Your task to perform on an android device: open app "Adobe Express: Graphic Design" Image 0: 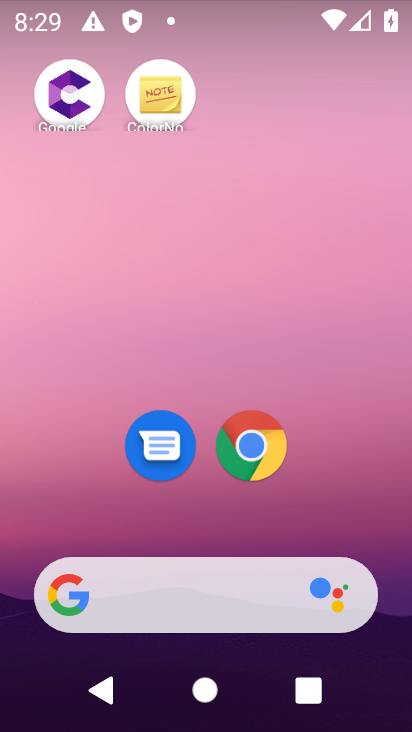
Step 0: drag from (174, 602) to (215, 226)
Your task to perform on an android device: open app "Adobe Express: Graphic Design" Image 1: 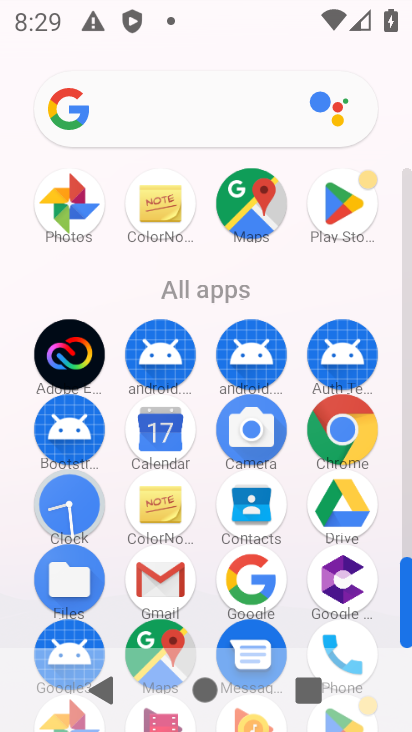
Step 1: click (340, 207)
Your task to perform on an android device: open app "Adobe Express: Graphic Design" Image 2: 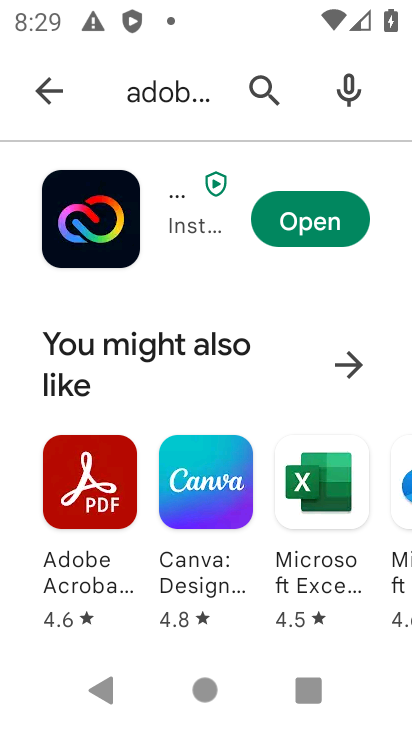
Step 2: press back button
Your task to perform on an android device: open app "Adobe Express: Graphic Design" Image 3: 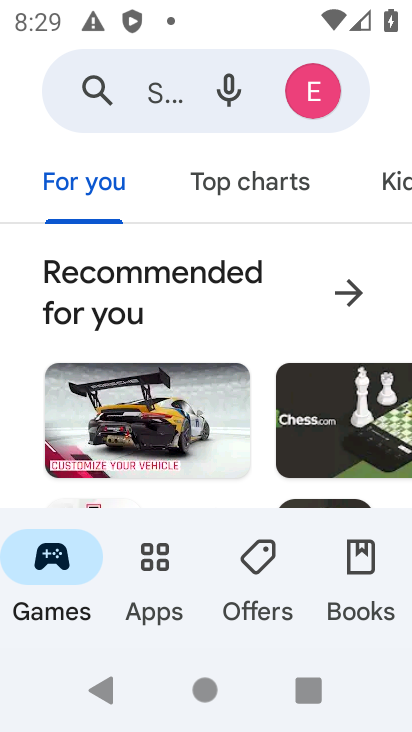
Step 3: click (173, 104)
Your task to perform on an android device: open app "Adobe Express: Graphic Design" Image 4: 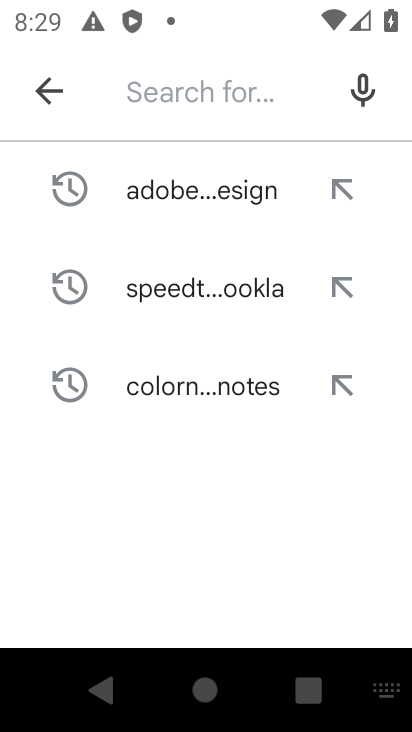
Step 4: type "Adobe Express: Graphic Design"
Your task to perform on an android device: open app "Adobe Express: Graphic Design" Image 5: 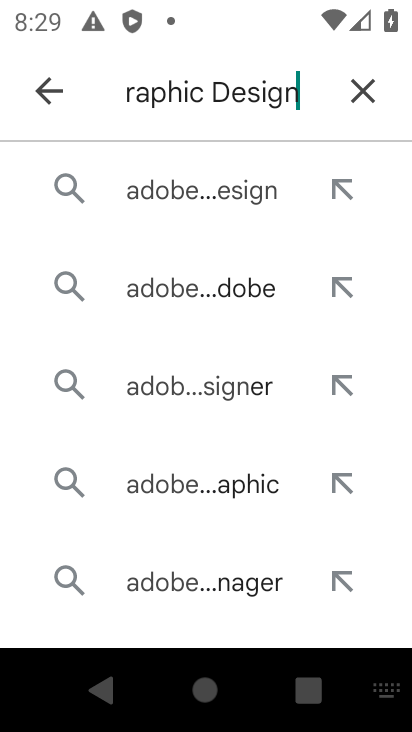
Step 5: type ""
Your task to perform on an android device: open app "Adobe Express: Graphic Design" Image 6: 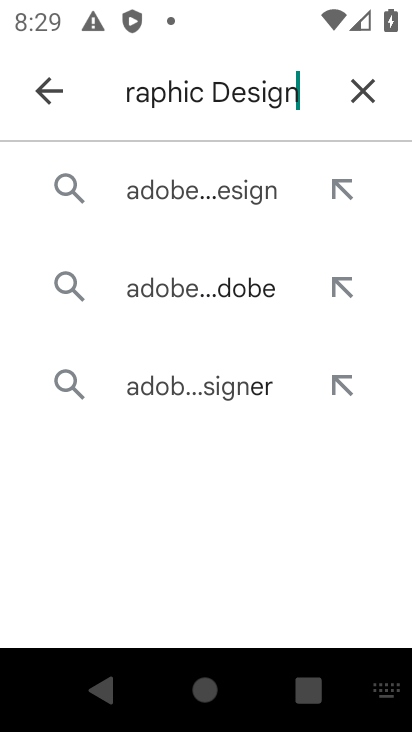
Step 6: click (194, 187)
Your task to perform on an android device: open app "Adobe Express: Graphic Design" Image 7: 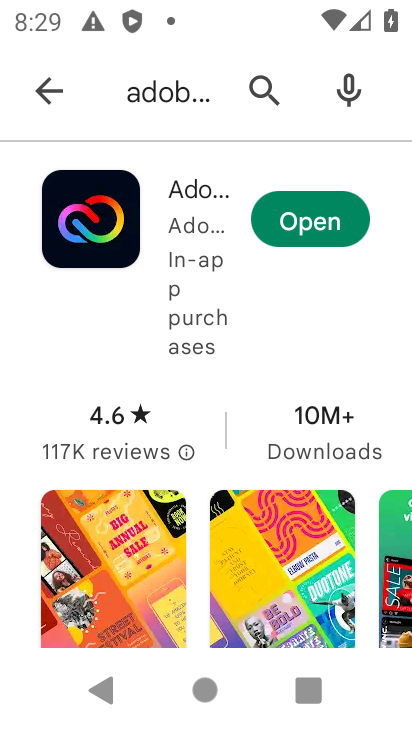
Step 7: click (311, 222)
Your task to perform on an android device: open app "Adobe Express: Graphic Design" Image 8: 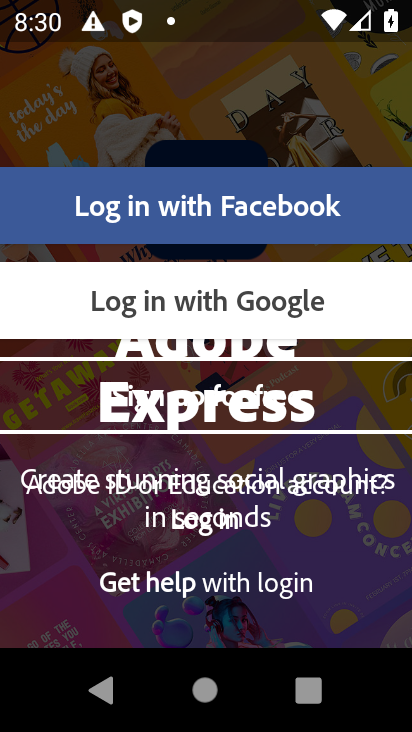
Step 8: task complete